Your task to perform on an android device: turn off notifications settings in the gmail app Image 0: 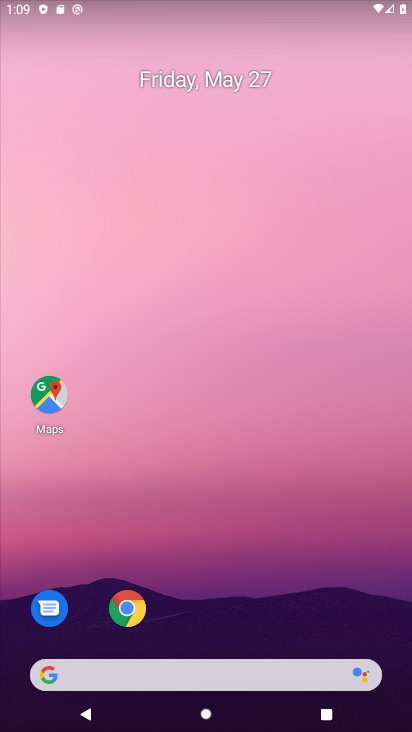
Step 0: press home button
Your task to perform on an android device: turn off notifications settings in the gmail app Image 1: 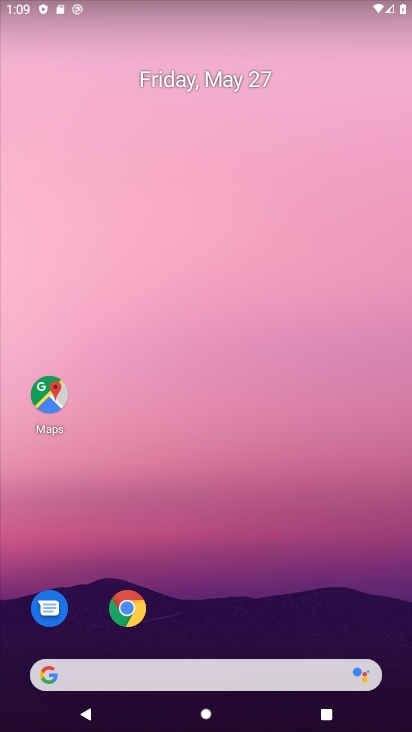
Step 1: drag from (133, 678) to (269, 163)
Your task to perform on an android device: turn off notifications settings in the gmail app Image 2: 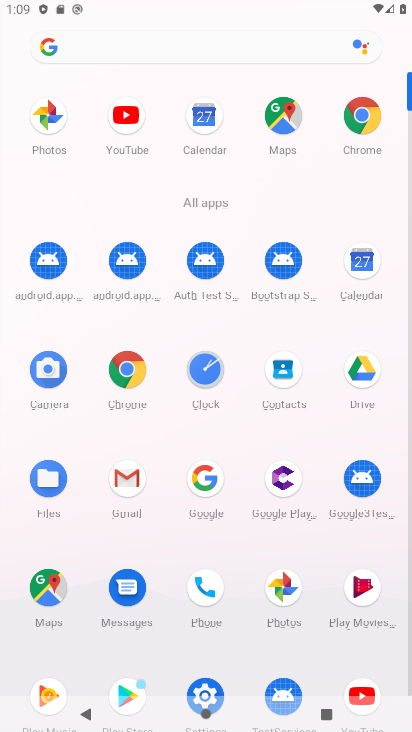
Step 2: click (134, 476)
Your task to perform on an android device: turn off notifications settings in the gmail app Image 3: 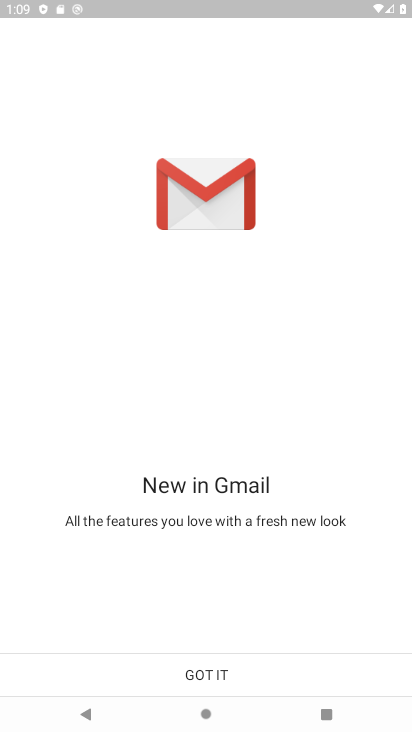
Step 3: click (196, 684)
Your task to perform on an android device: turn off notifications settings in the gmail app Image 4: 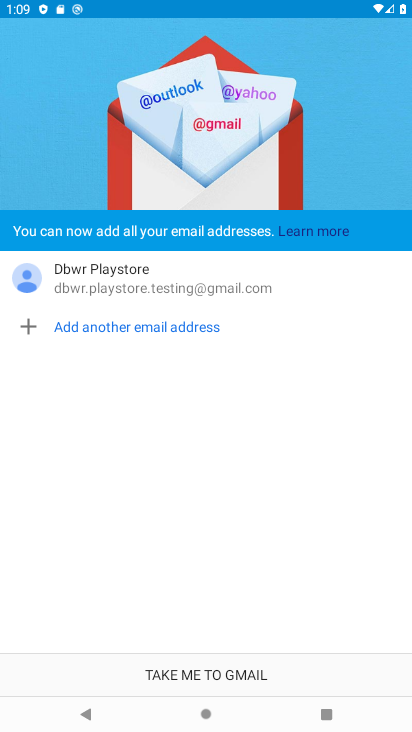
Step 4: click (202, 676)
Your task to perform on an android device: turn off notifications settings in the gmail app Image 5: 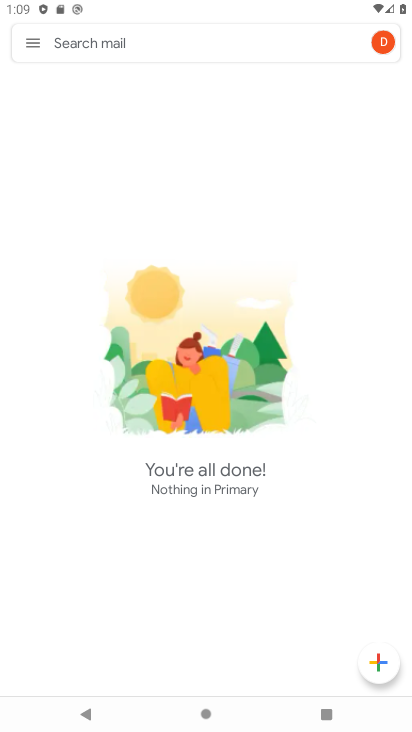
Step 5: click (31, 37)
Your task to perform on an android device: turn off notifications settings in the gmail app Image 6: 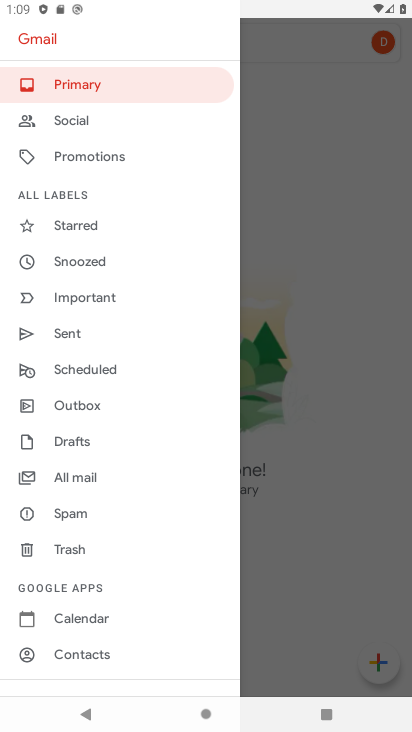
Step 6: drag from (119, 627) to (164, 181)
Your task to perform on an android device: turn off notifications settings in the gmail app Image 7: 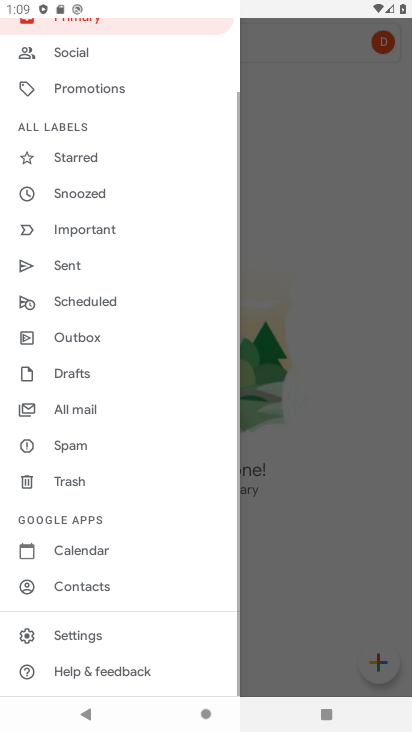
Step 7: click (96, 628)
Your task to perform on an android device: turn off notifications settings in the gmail app Image 8: 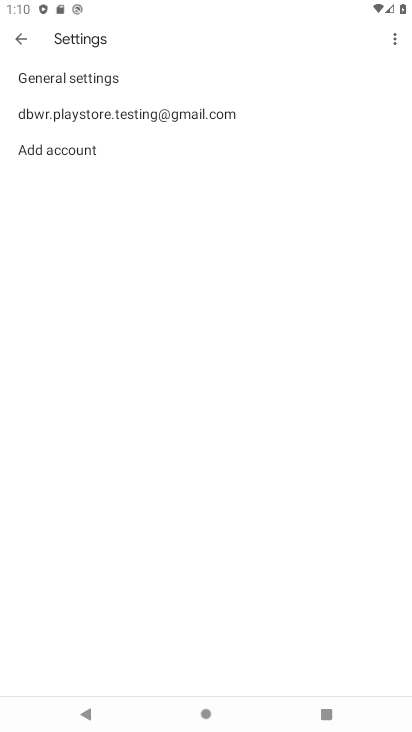
Step 8: click (213, 118)
Your task to perform on an android device: turn off notifications settings in the gmail app Image 9: 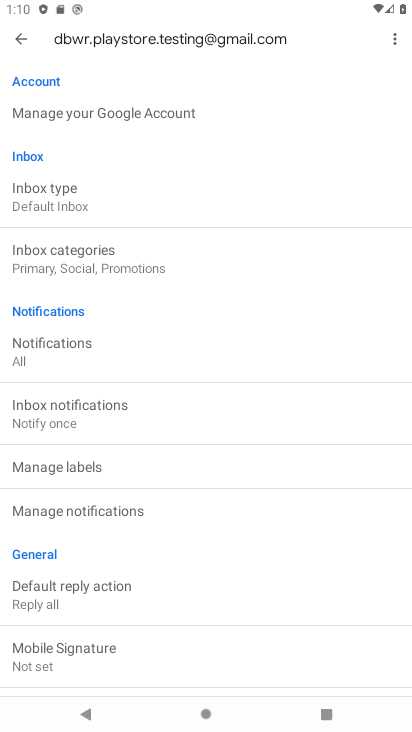
Step 9: click (57, 348)
Your task to perform on an android device: turn off notifications settings in the gmail app Image 10: 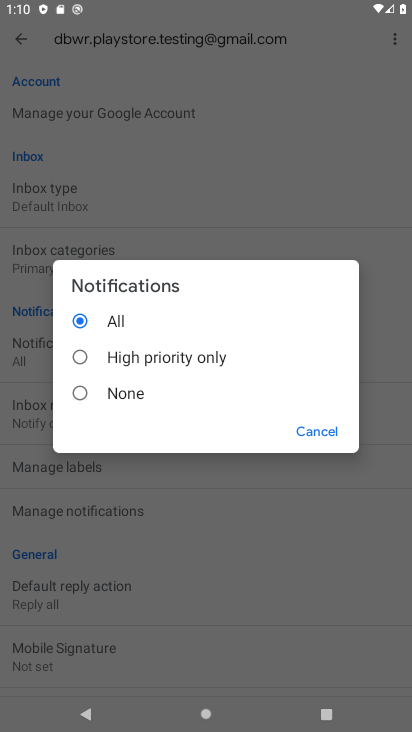
Step 10: click (84, 388)
Your task to perform on an android device: turn off notifications settings in the gmail app Image 11: 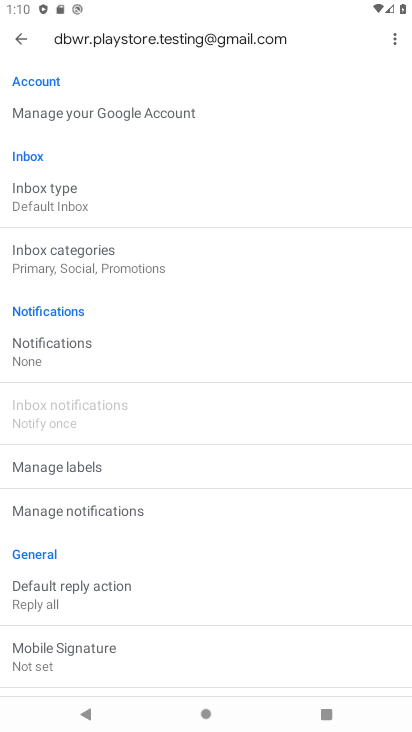
Step 11: task complete